Your task to perform on an android device: turn on improve location accuracy Image 0: 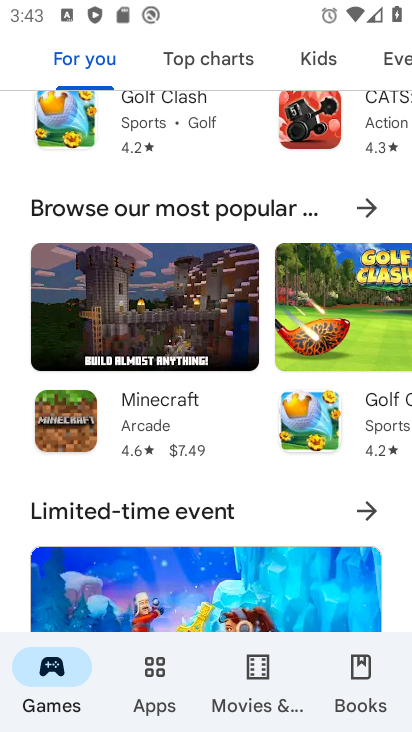
Step 0: drag from (247, 557) to (332, 166)
Your task to perform on an android device: turn on improve location accuracy Image 1: 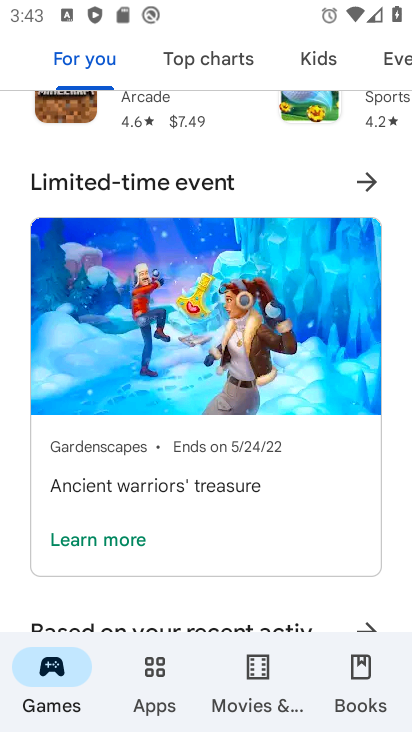
Step 1: press home button
Your task to perform on an android device: turn on improve location accuracy Image 2: 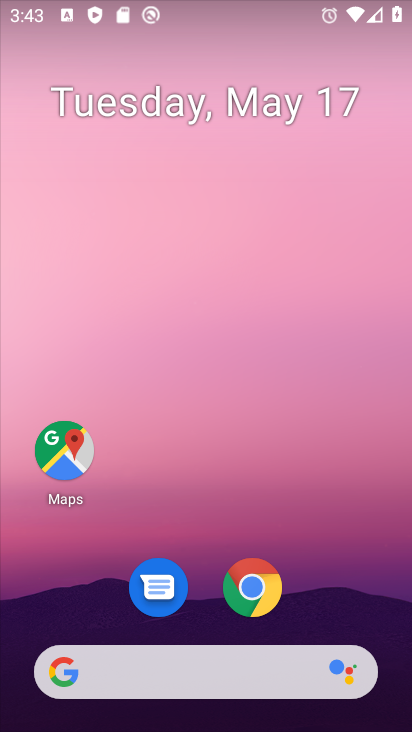
Step 2: drag from (209, 630) to (266, 151)
Your task to perform on an android device: turn on improve location accuracy Image 3: 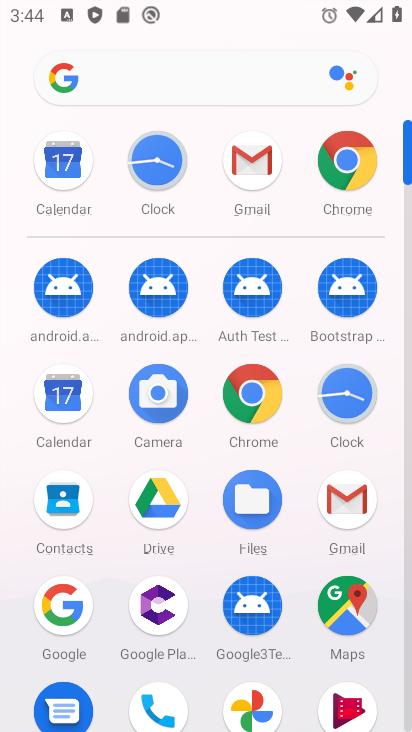
Step 3: drag from (209, 608) to (247, 233)
Your task to perform on an android device: turn on improve location accuracy Image 4: 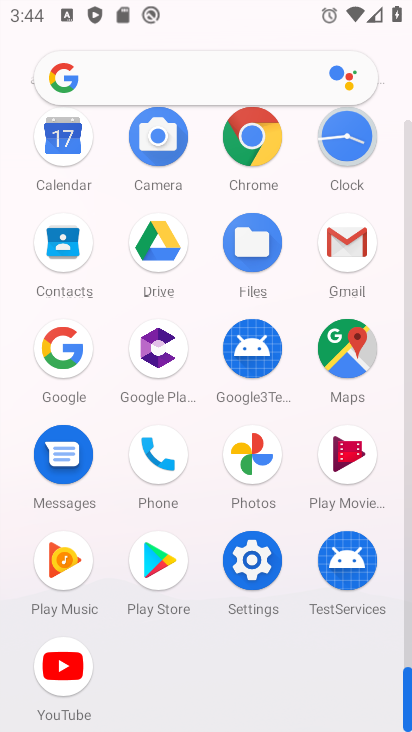
Step 4: click (254, 572)
Your task to perform on an android device: turn on improve location accuracy Image 5: 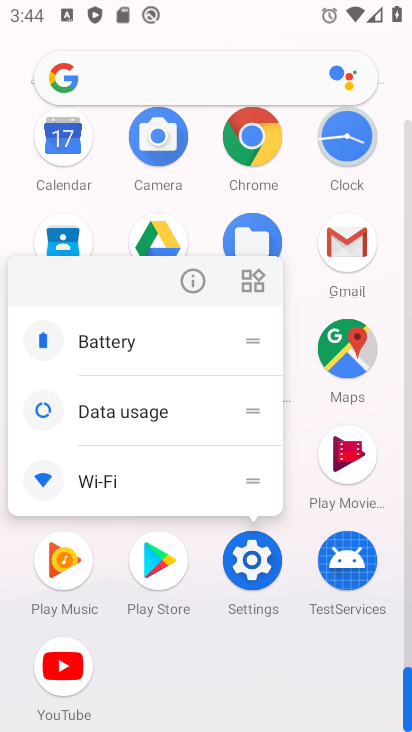
Step 5: click (178, 279)
Your task to perform on an android device: turn on improve location accuracy Image 6: 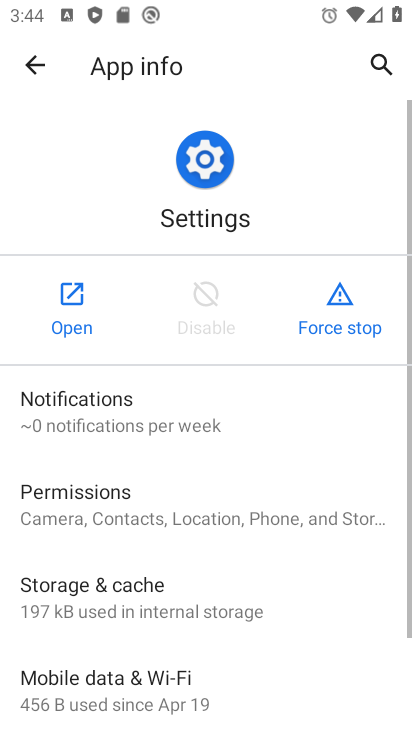
Step 6: click (83, 315)
Your task to perform on an android device: turn on improve location accuracy Image 7: 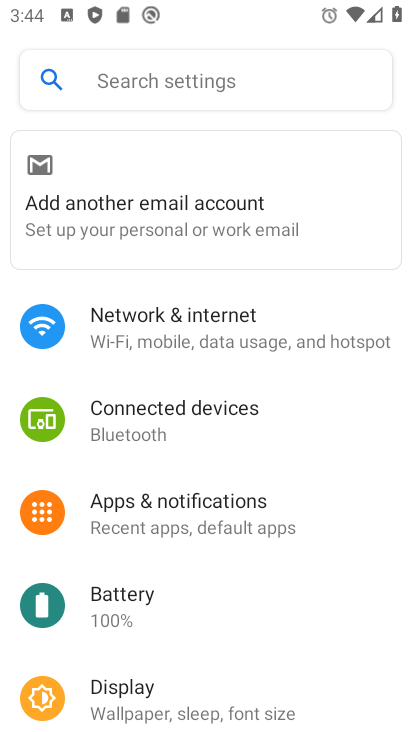
Step 7: drag from (252, 599) to (310, 234)
Your task to perform on an android device: turn on improve location accuracy Image 8: 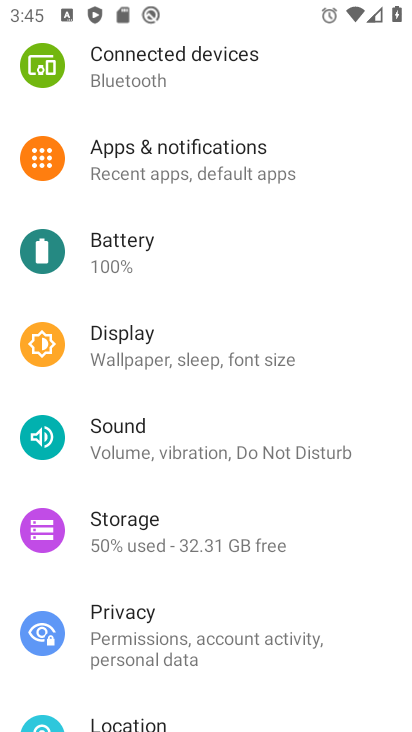
Step 8: click (173, 715)
Your task to perform on an android device: turn on improve location accuracy Image 9: 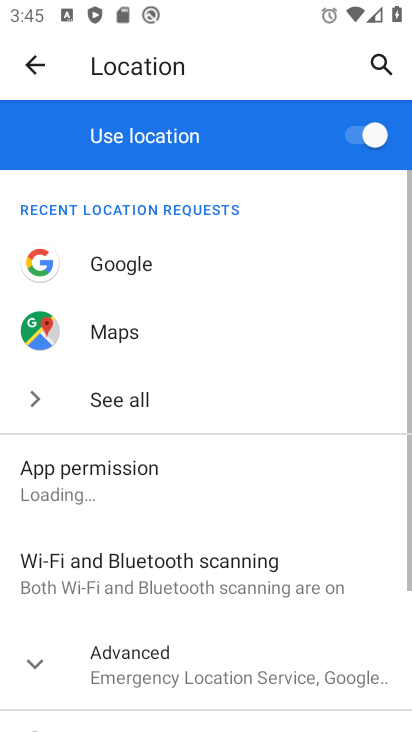
Step 9: drag from (173, 699) to (247, 343)
Your task to perform on an android device: turn on improve location accuracy Image 10: 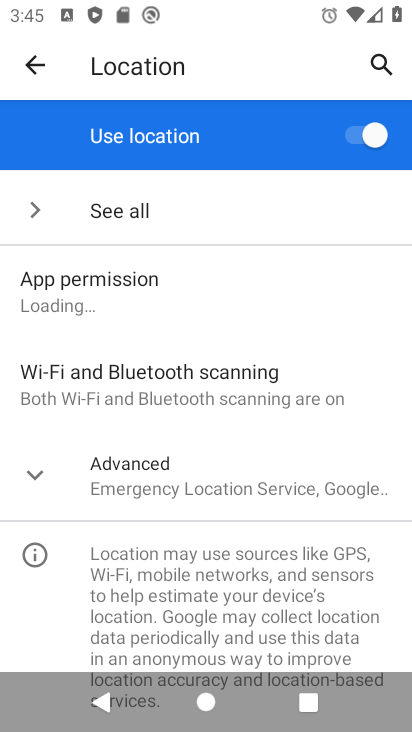
Step 10: click (132, 479)
Your task to perform on an android device: turn on improve location accuracy Image 11: 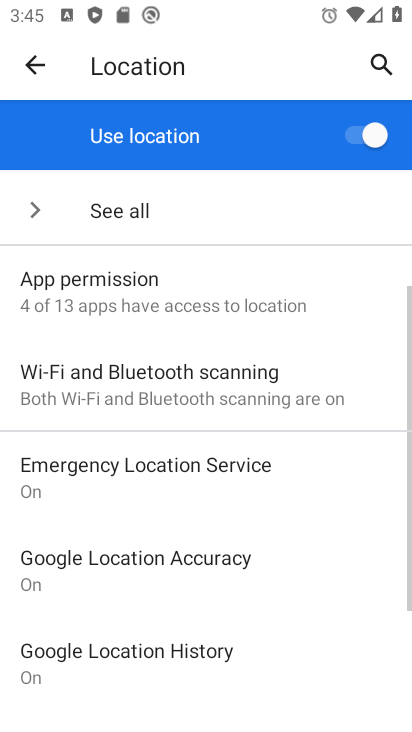
Step 11: click (205, 572)
Your task to perform on an android device: turn on improve location accuracy Image 12: 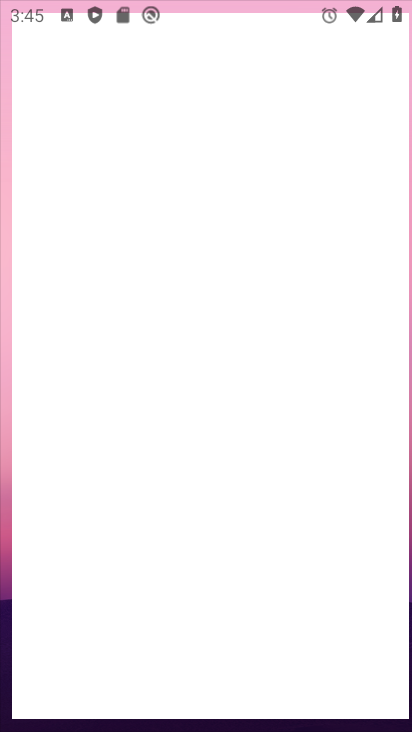
Step 12: task complete